Your task to perform on an android device: Open Google Maps Image 0: 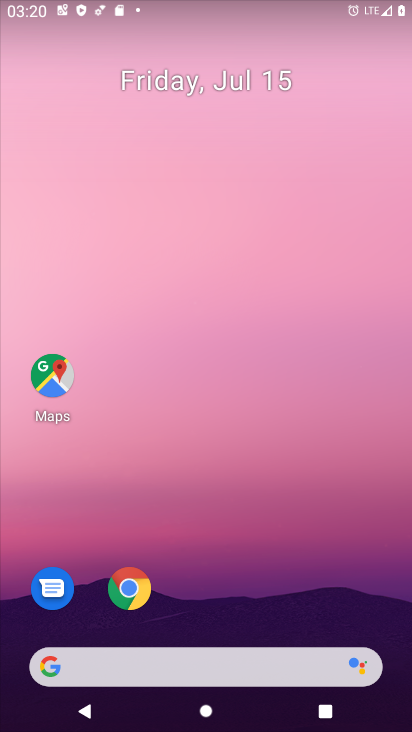
Step 0: click (53, 378)
Your task to perform on an android device: Open Google Maps Image 1: 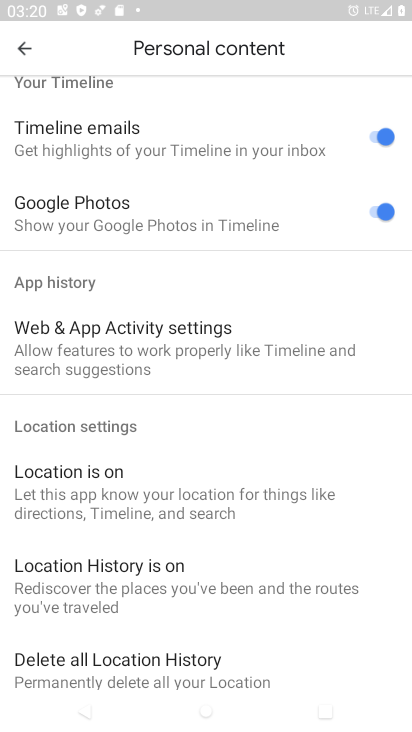
Step 1: click (29, 40)
Your task to perform on an android device: Open Google Maps Image 2: 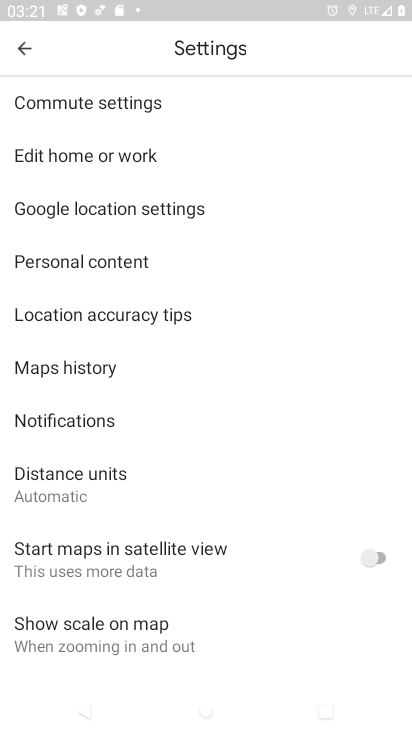
Step 2: click (25, 51)
Your task to perform on an android device: Open Google Maps Image 3: 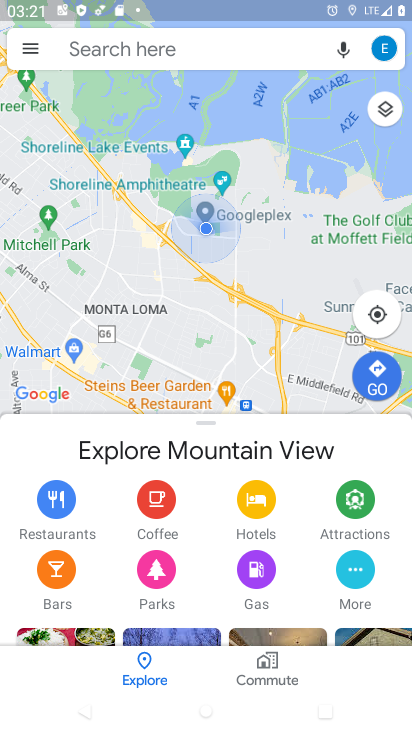
Step 3: task complete